Your task to perform on an android device: Go to ESPN.com Image 0: 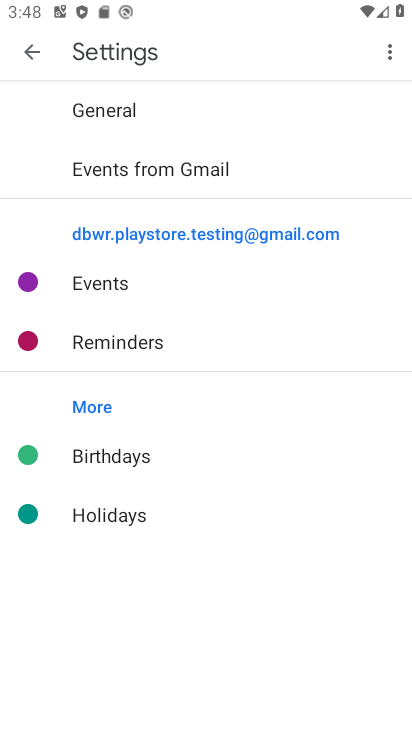
Step 0: click (29, 53)
Your task to perform on an android device: Go to ESPN.com Image 1: 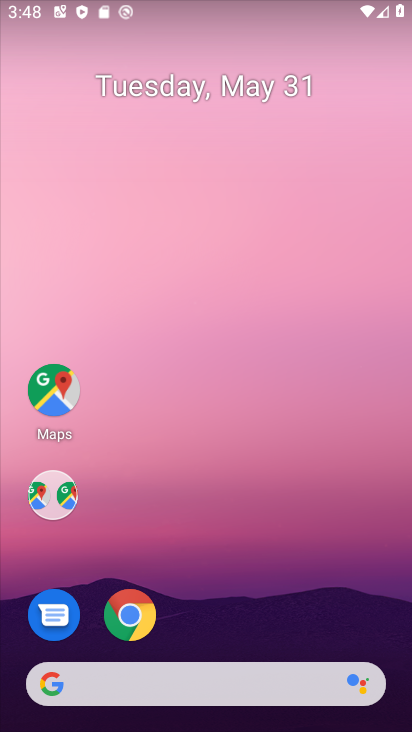
Step 1: drag from (263, 677) to (133, 162)
Your task to perform on an android device: Go to ESPN.com Image 2: 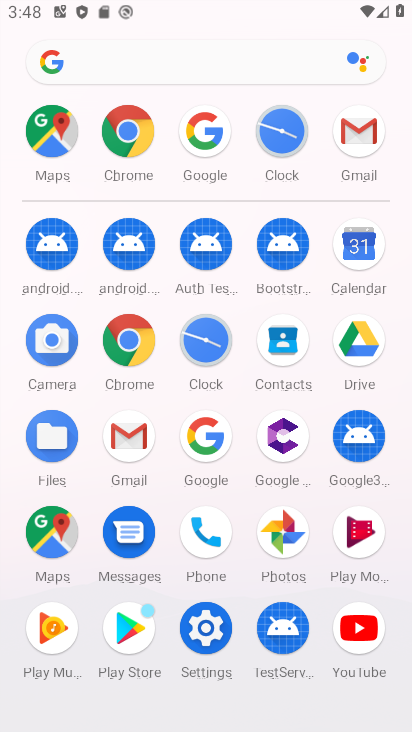
Step 2: click (128, 135)
Your task to perform on an android device: Go to ESPN.com Image 3: 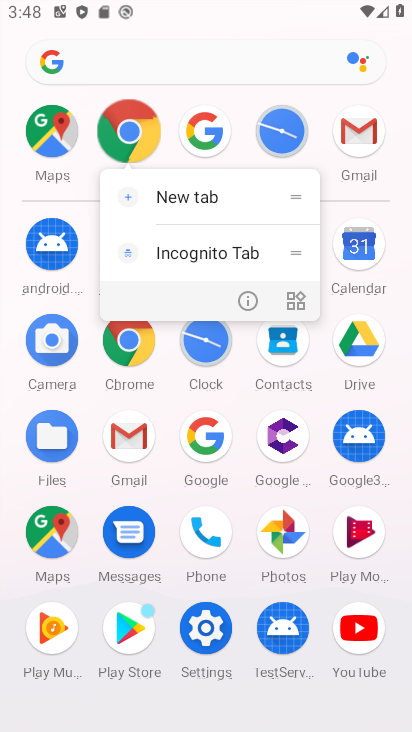
Step 3: click (126, 137)
Your task to perform on an android device: Go to ESPN.com Image 4: 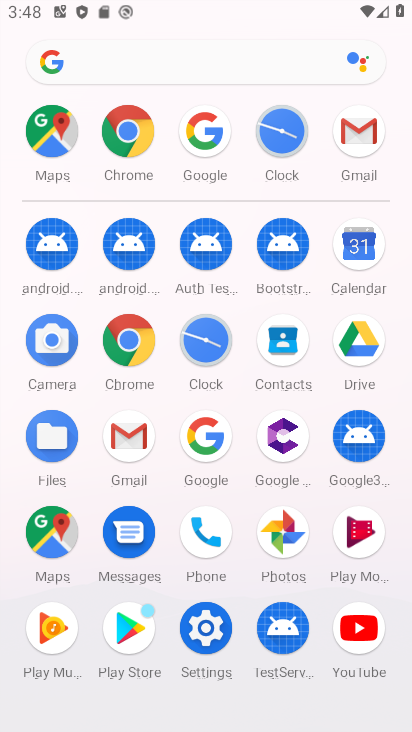
Step 4: click (129, 138)
Your task to perform on an android device: Go to ESPN.com Image 5: 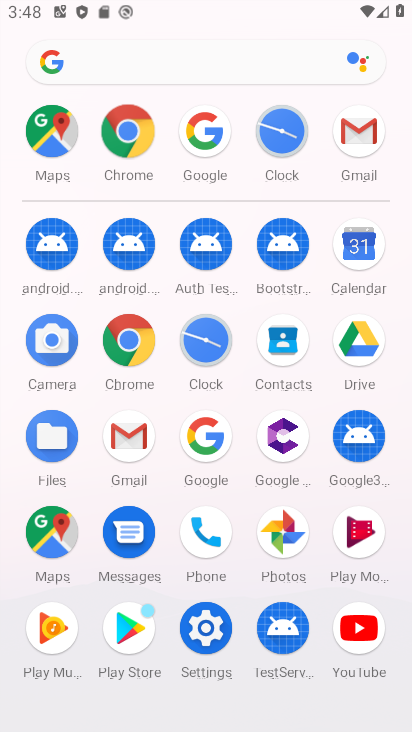
Step 5: click (130, 138)
Your task to perform on an android device: Go to ESPN.com Image 6: 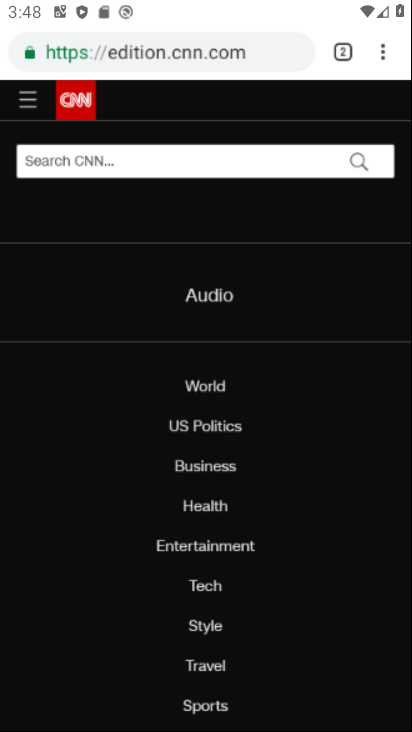
Step 6: click (130, 138)
Your task to perform on an android device: Go to ESPN.com Image 7: 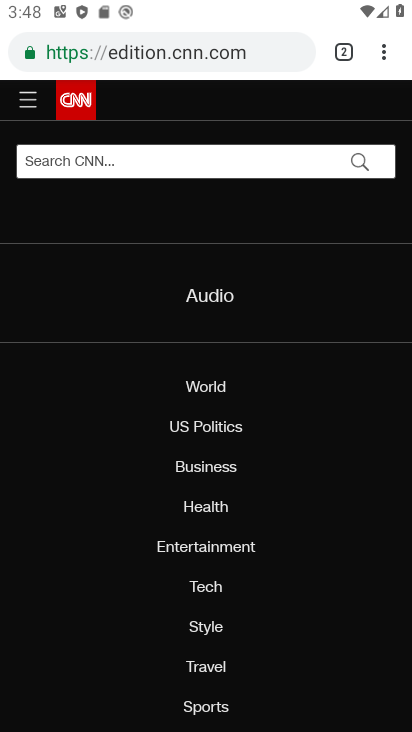
Step 7: drag from (383, 51) to (183, 92)
Your task to perform on an android device: Go to ESPN.com Image 8: 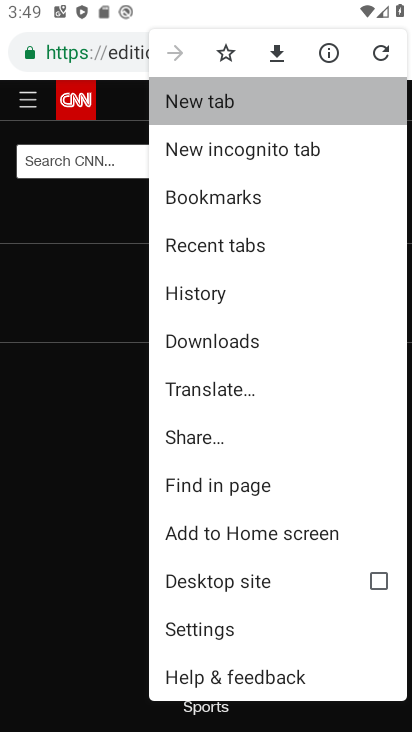
Step 8: click (187, 89)
Your task to perform on an android device: Go to ESPN.com Image 9: 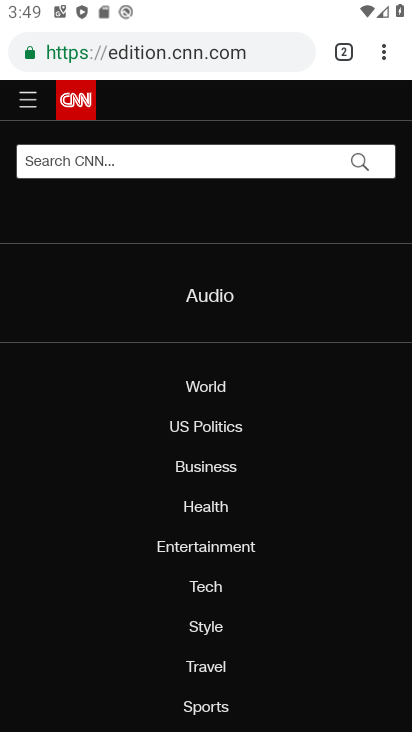
Step 9: click (187, 89)
Your task to perform on an android device: Go to ESPN.com Image 10: 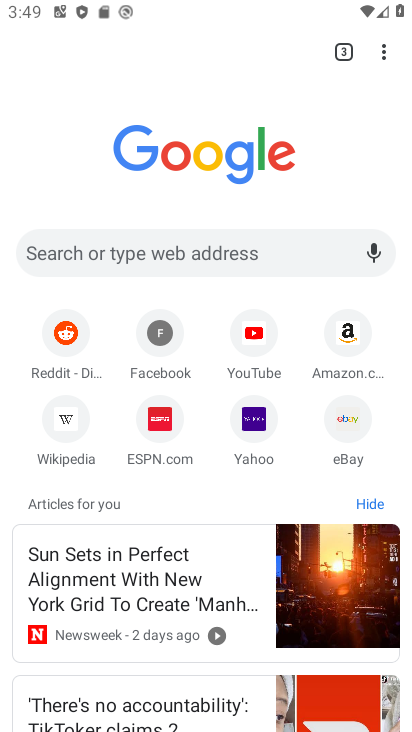
Step 10: click (159, 418)
Your task to perform on an android device: Go to ESPN.com Image 11: 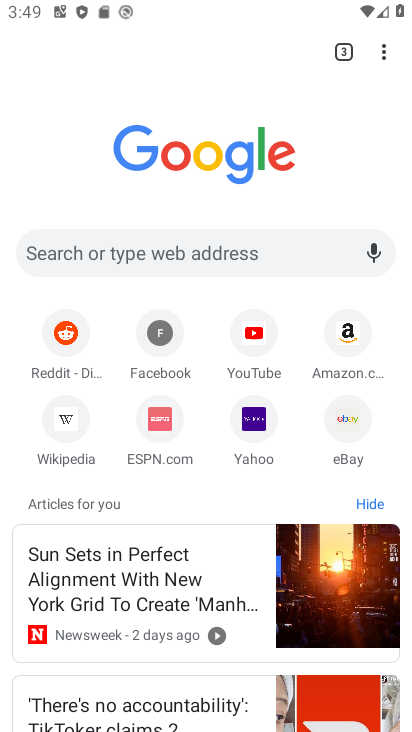
Step 11: click (159, 418)
Your task to perform on an android device: Go to ESPN.com Image 12: 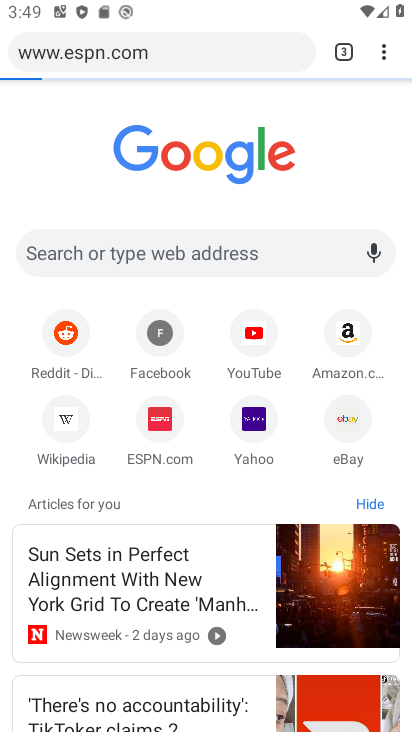
Step 12: click (160, 413)
Your task to perform on an android device: Go to ESPN.com Image 13: 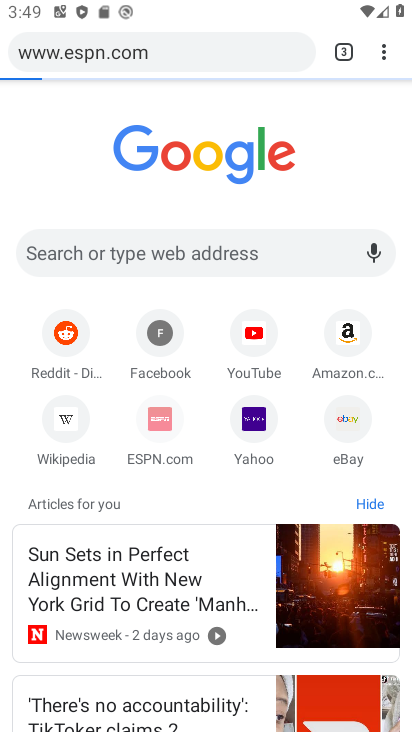
Step 13: click (160, 413)
Your task to perform on an android device: Go to ESPN.com Image 14: 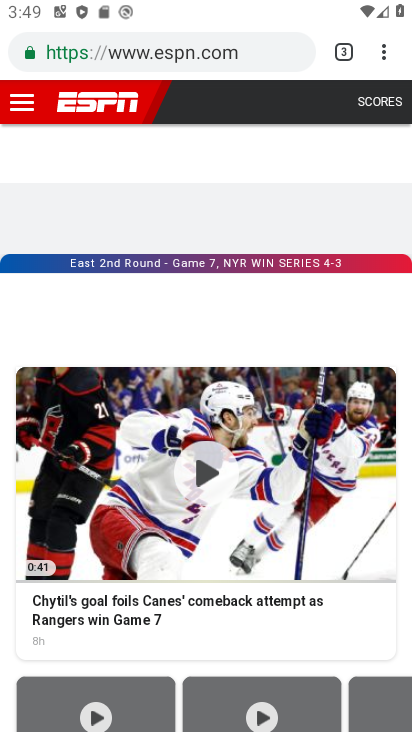
Step 14: task complete